Your task to perform on an android device: What is the news today? Image 0: 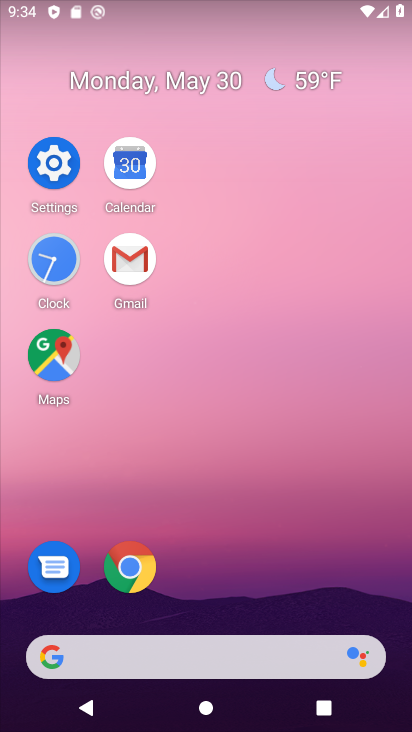
Step 0: drag from (278, 216) to (255, 62)
Your task to perform on an android device: What is the news today? Image 1: 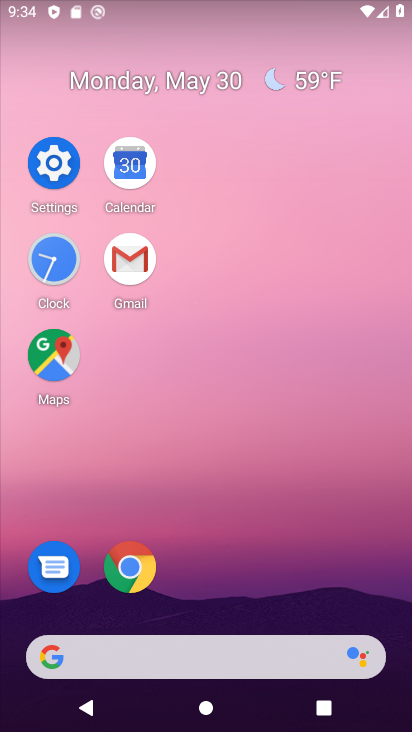
Step 1: drag from (268, 603) to (218, 76)
Your task to perform on an android device: What is the news today? Image 2: 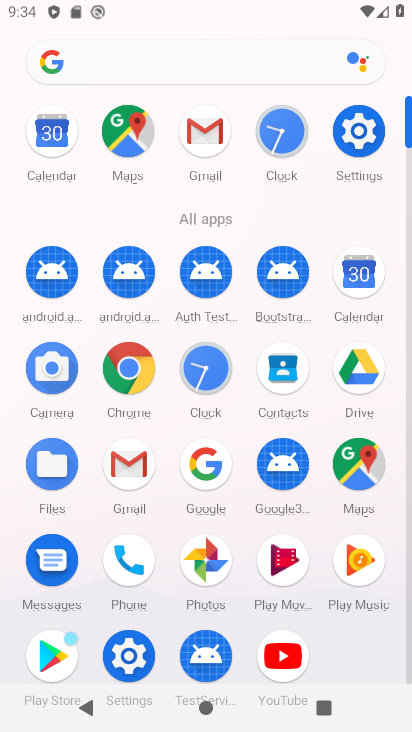
Step 2: drag from (204, 470) to (116, 382)
Your task to perform on an android device: What is the news today? Image 3: 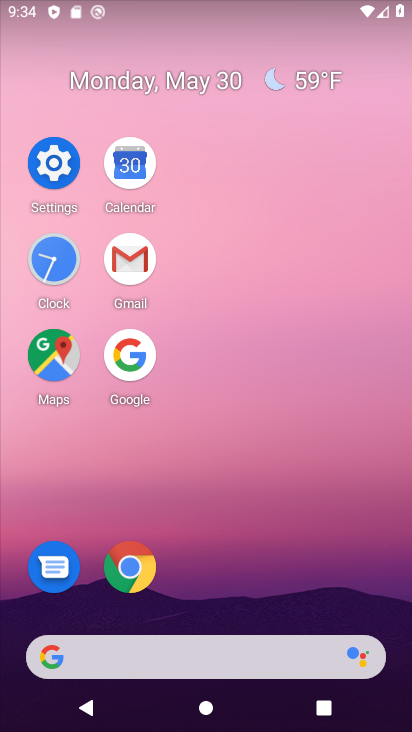
Step 3: click (119, 354)
Your task to perform on an android device: What is the news today? Image 4: 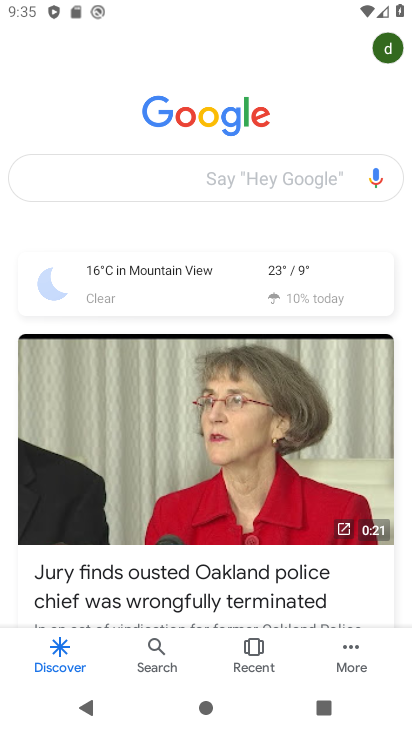
Step 4: click (215, 184)
Your task to perform on an android device: What is the news today? Image 5: 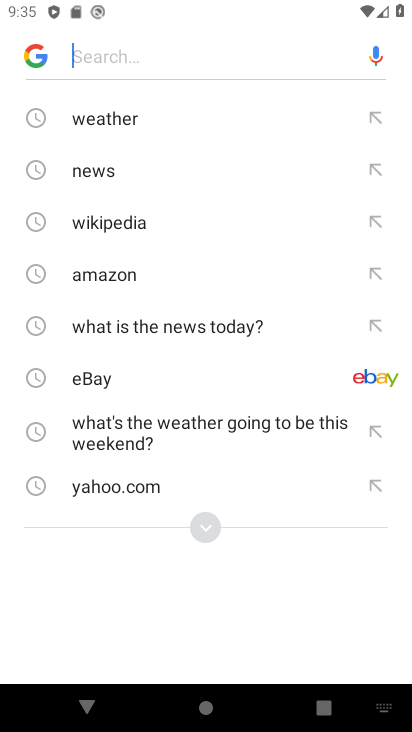
Step 5: click (92, 167)
Your task to perform on an android device: What is the news today? Image 6: 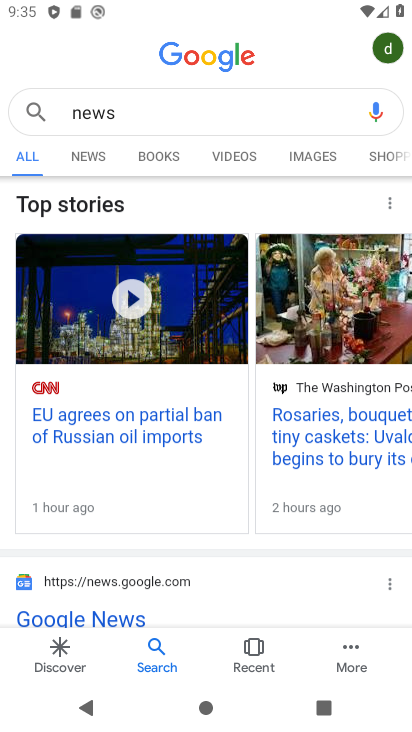
Step 6: task complete